Your task to perform on an android device: move a message to another label in the gmail app Image 0: 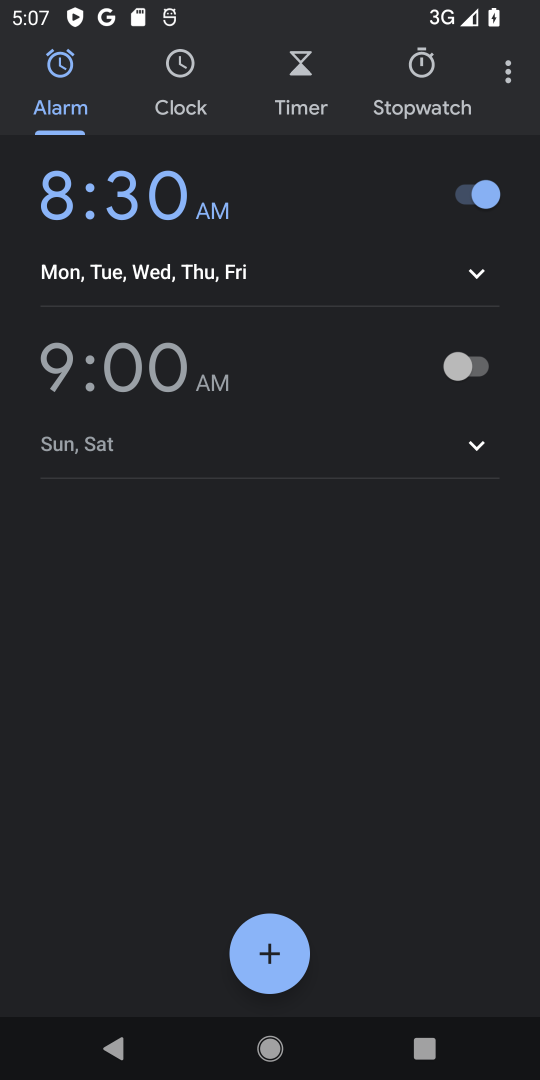
Step 0: press home button
Your task to perform on an android device: move a message to another label in the gmail app Image 1: 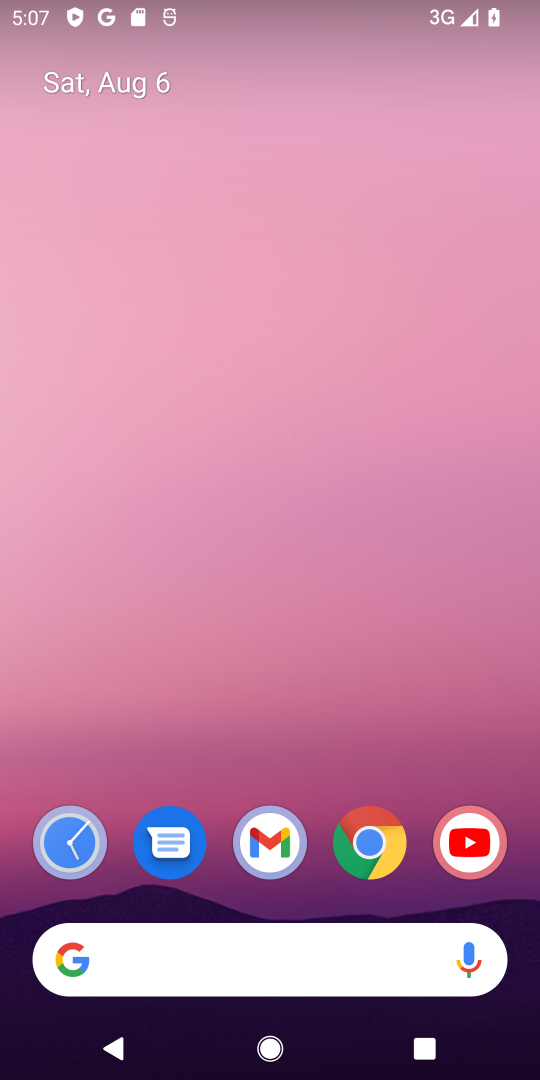
Step 1: click (293, 828)
Your task to perform on an android device: move a message to another label in the gmail app Image 2: 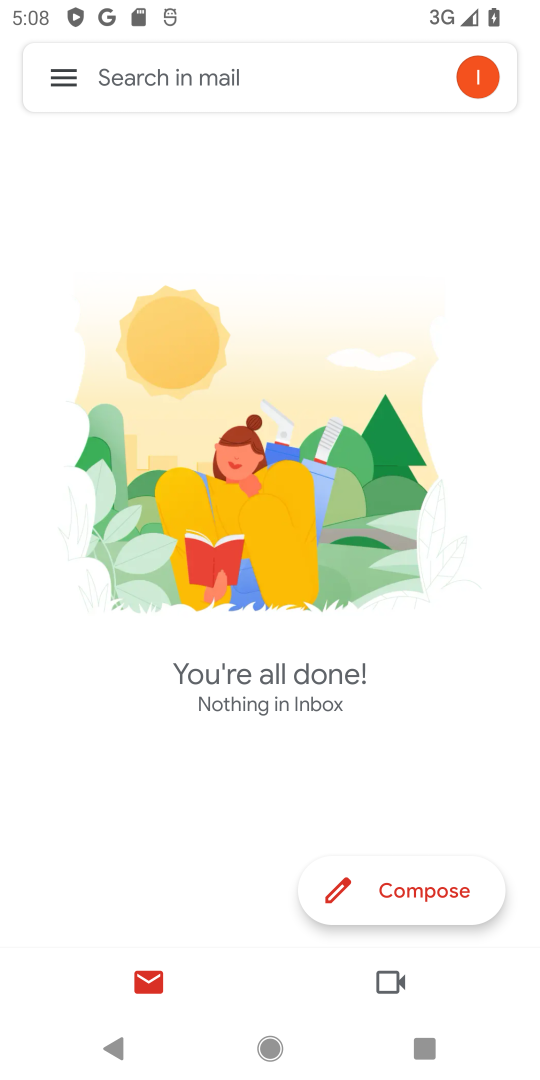
Step 2: task complete